Your task to perform on an android device: change the clock style Image 0: 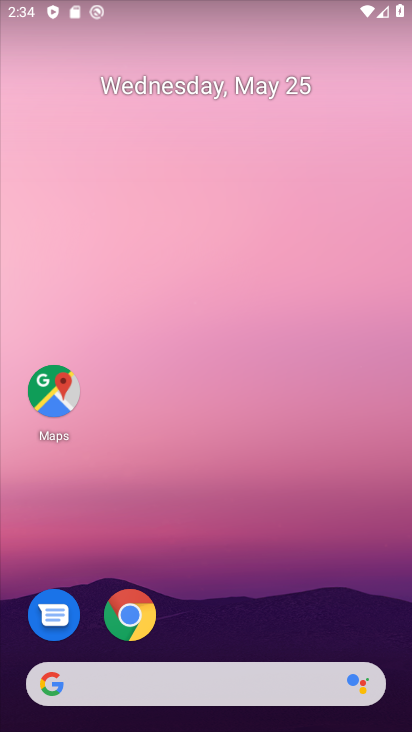
Step 0: drag from (212, 645) to (203, 260)
Your task to perform on an android device: change the clock style Image 1: 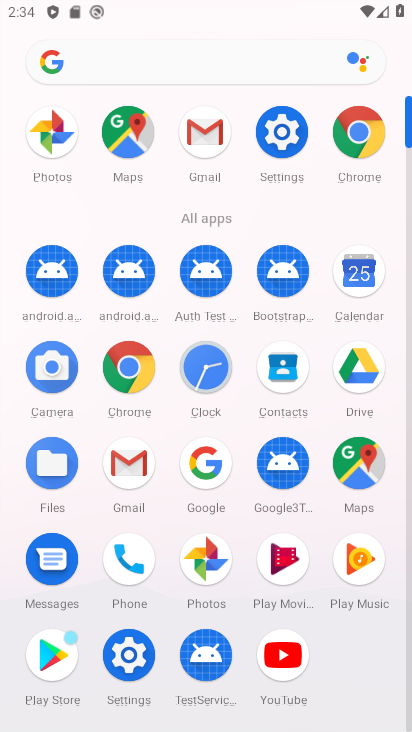
Step 1: click (217, 376)
Your task to perform on an android device: change the clock style Image 2: 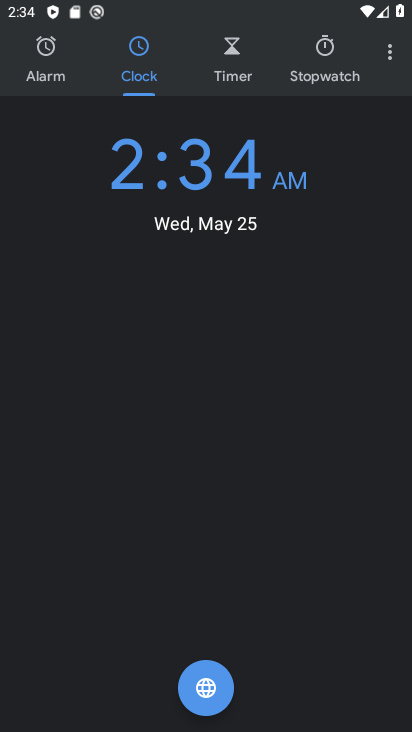
Step 2: click (391, 55)
Your task to perform on an android device: change the clock style Image 3: 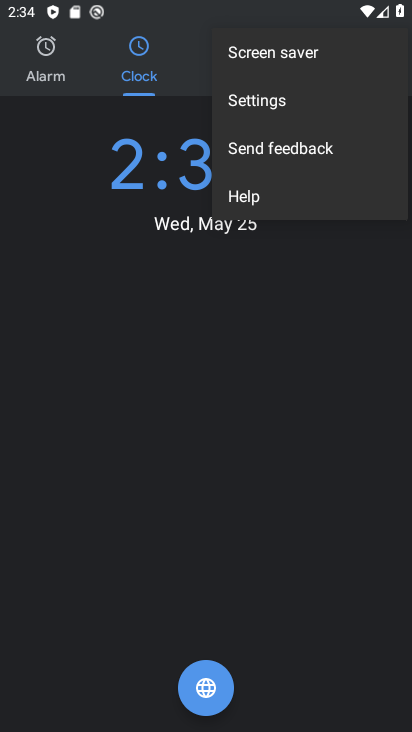
Step 3: click (337, 100)
Your task to perform on an android device: change the clock style Image 4: 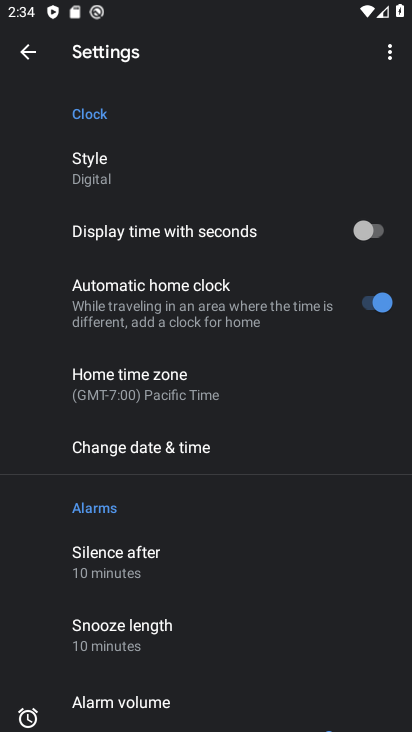
Step 4: click (196, 184)
Your task to perform on an android device: change the clock style Image 5: 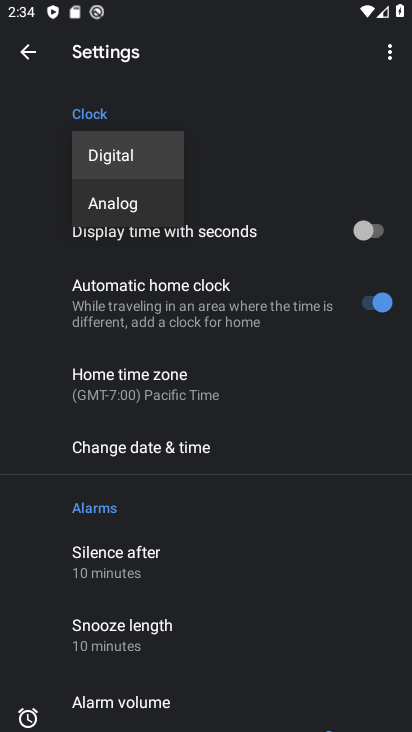
Step 5: click (141, 192)
Your task to perform on an android device: change the clock style Image 6: 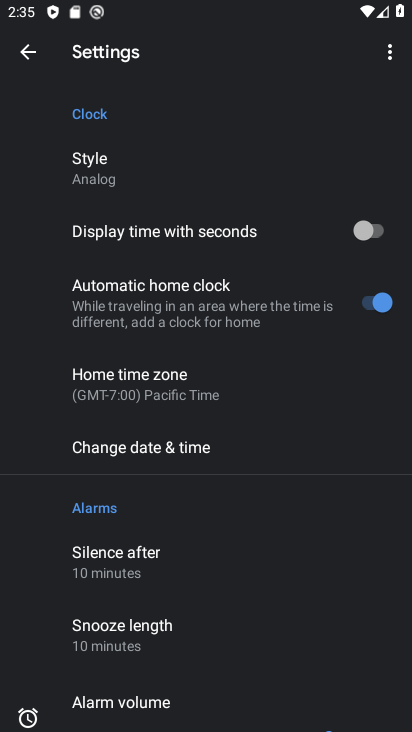
Step 6: task complete